Your task to perform on an android device: check storage Image 0: 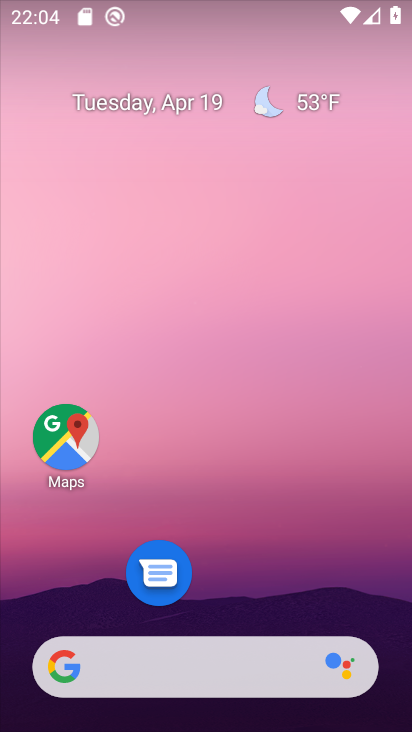
Step 0: press home button
Your task to perform on an android device: check storage Image 1: 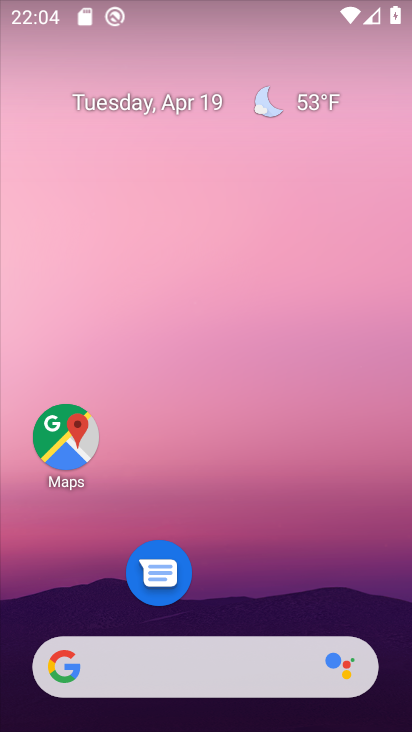
Step 1: drag from (228, 597) to (295, 38)
Your task to perform on an android device: check storage Image 2: 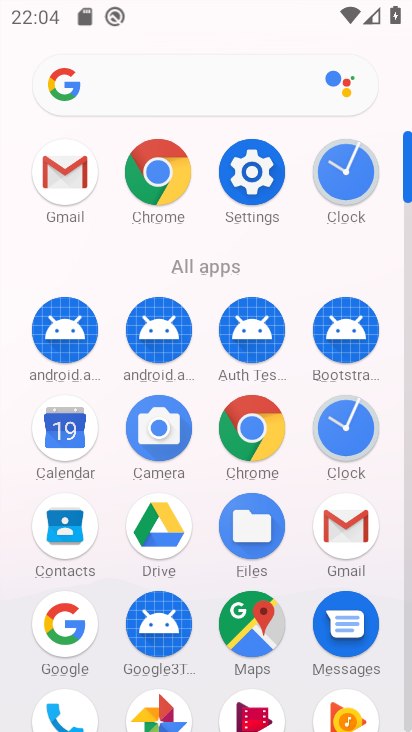
Step 2: click (247, 164)
Your task to perform on an android device: check storage Image 3: 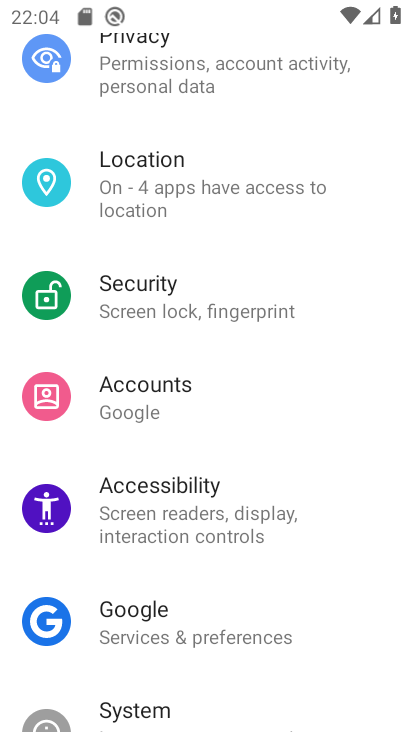
Step 3: drag from (201, 139) to (173, 527)
Your task to perform on an android device: check storage Image 4: 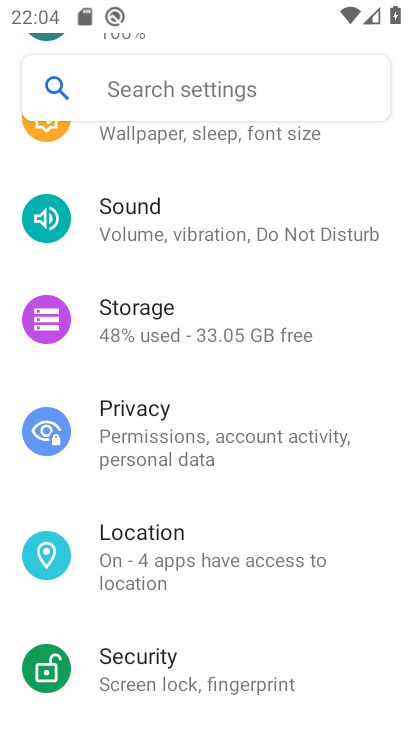
Step 4: click (186, 312)
Your task to perform on an android device: check storage Image 5: 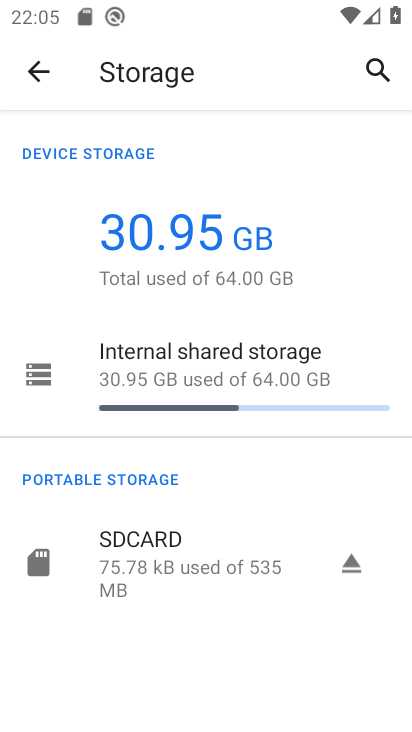
Step 5: task complete